Your task to perform on an android device: Go to eBay Image 0: 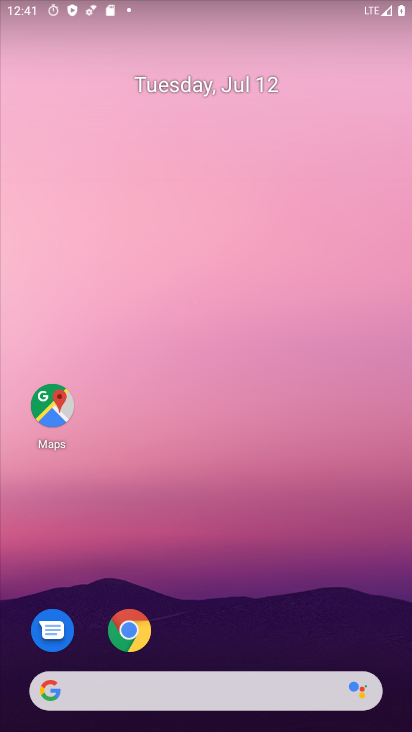
Step 0: click (129, 627)
Your task to perform on an android device: Go to eBay Image 1: 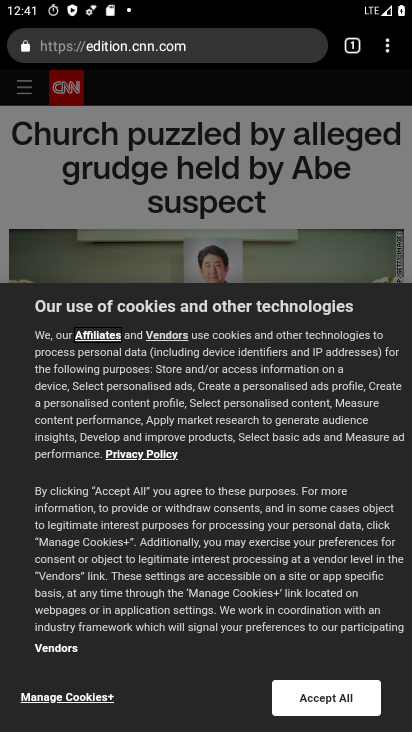
Step 1: click (161, 48)
Your task to perform on an android device: Go to eBay Image 2: 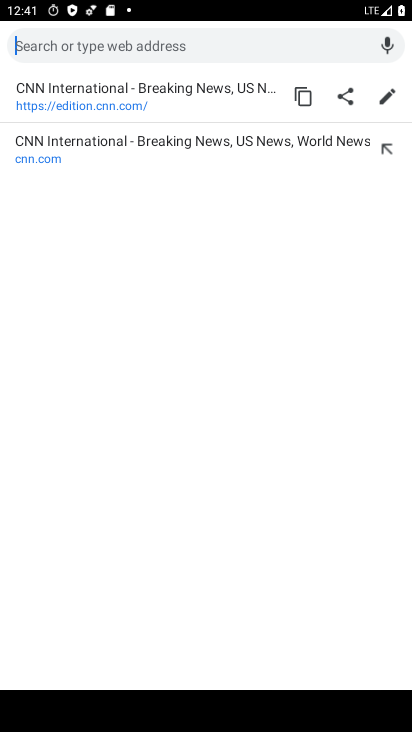
Step 2: type "ebay"
Your task to perform on an android device: Go to eBay Image 3: 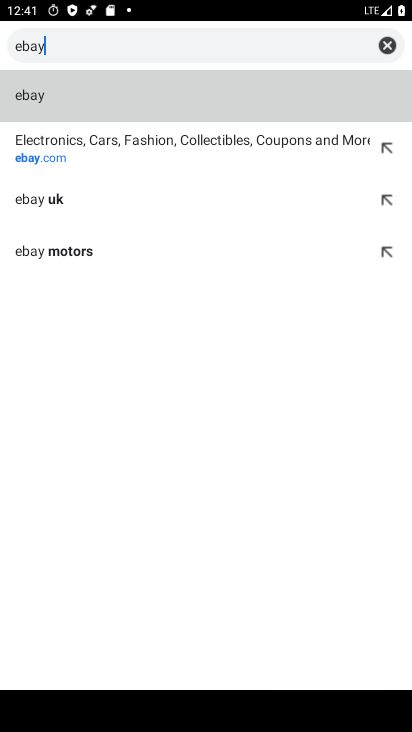
Step 3: click (345, 95)
Your task to perform on an android device: Go to eBay Image 4: 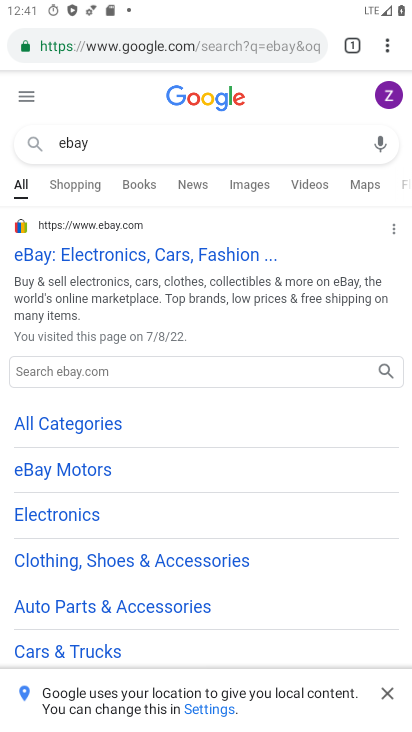
Step 4: click (51, 258)
Your task to perform on an android device: Go to eBay Image 5: 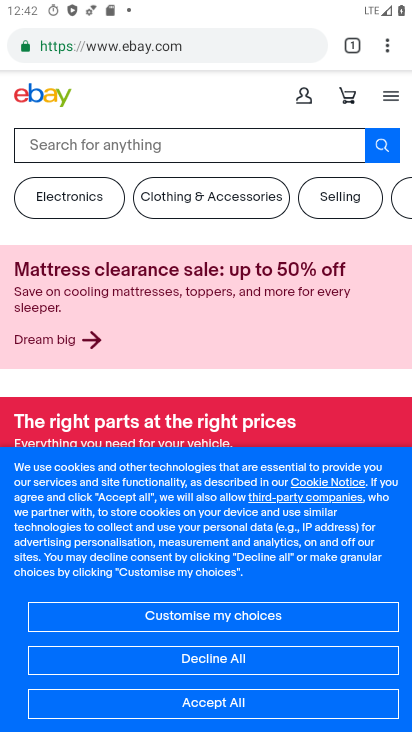
Step 5: task complete